Your task to perform on an android device: Search for pizza restaurants on Maps Image 0: 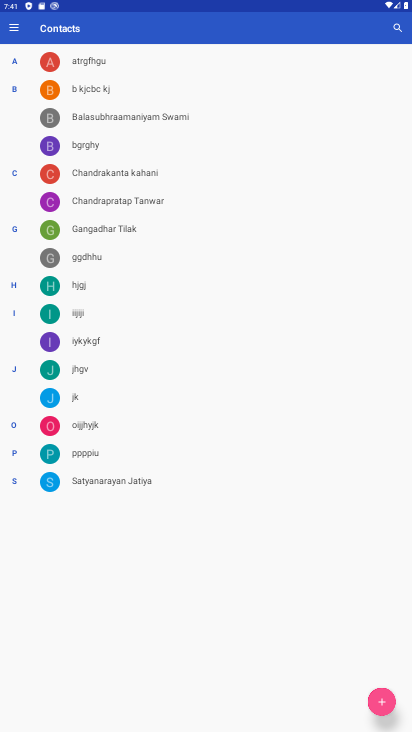
Step 0: press home button
Your task to perform on an android device: Search for pizza restaurants on Maps Image 1: 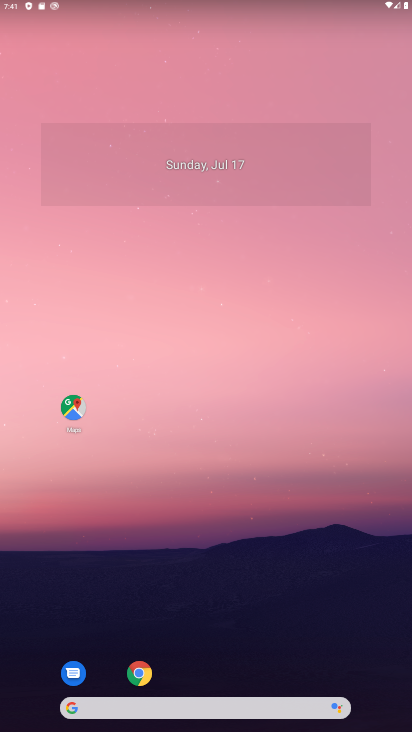
Step 1: click (64, 412)
Your task to perform on an android device: Search for pizza restaurants on Maps Image 2: 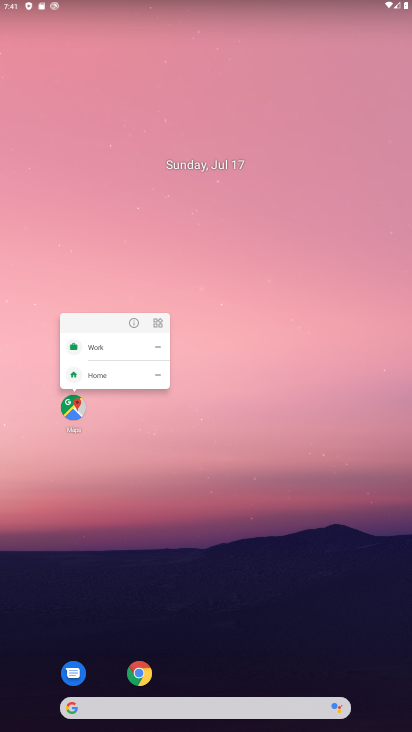
Step 2: click (64, 409)
Your task to perform on an android device: Search for pizza restaurants on Maps Image 3: 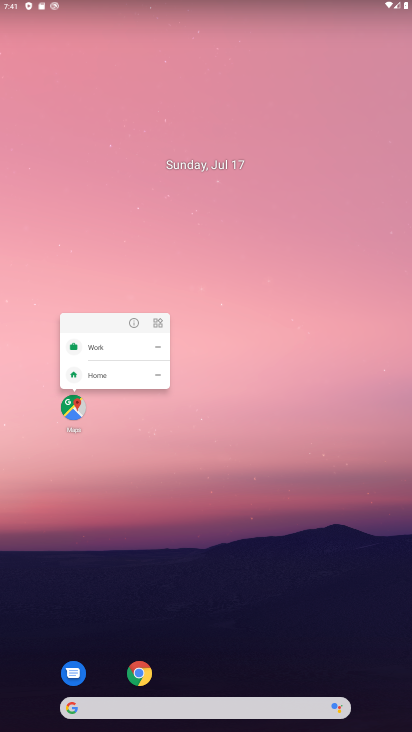
Step 3: click (75, 400)
Your task to perform on an android device: Search for pizza restaurants on Maps Image 4: 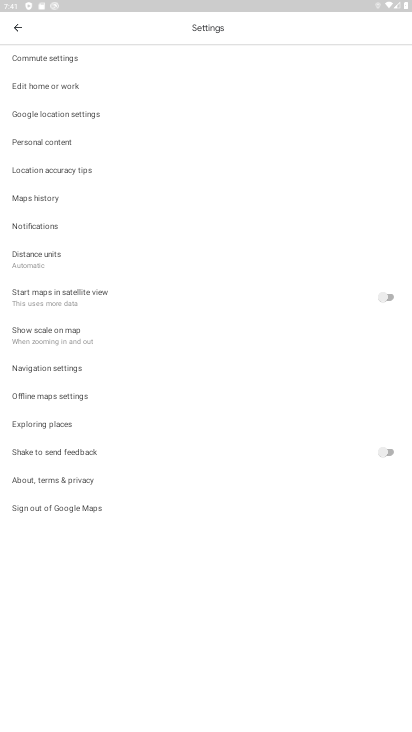
Step 4: click (11, 29)
Your task to perform on an android device: Search for pizza restaurants on Maps Image 5: 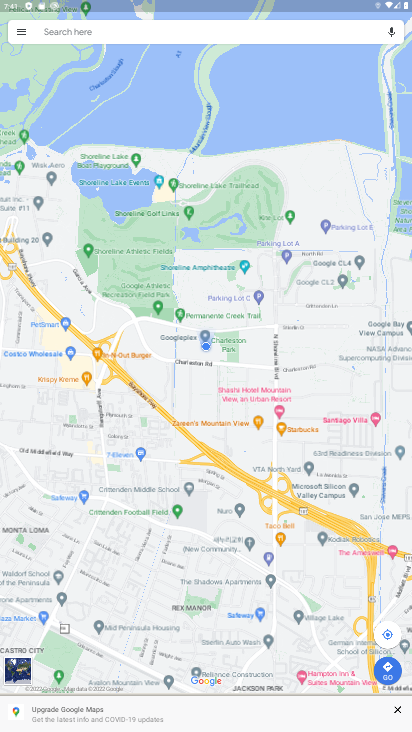
Step 5: click (62, 38)
Your task to perform on an android device: Search for pizza restaurants on Maps Image 6: 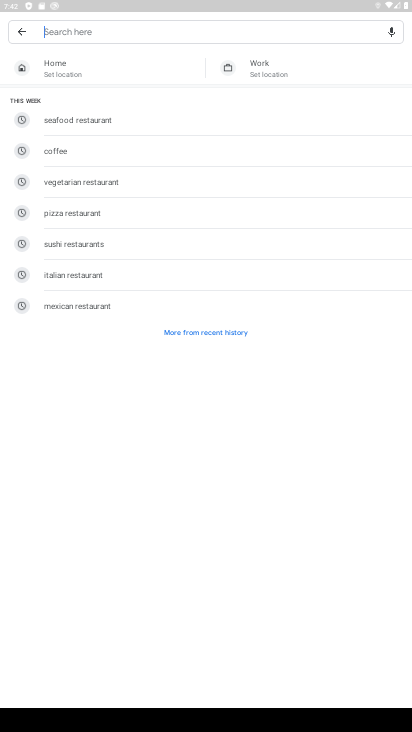
Step 6: type " pizza restaurants"
Your task to perform on an android device: Search for pizza restaurants on Maps Image 7: 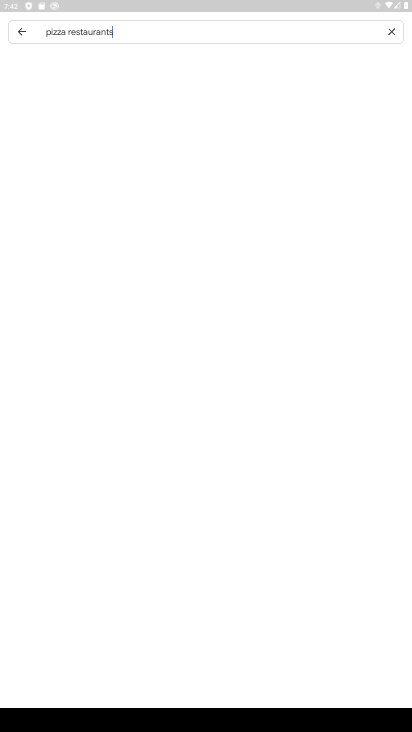
Step 7: type ""
Your task to perform on an android device: Search for pizza restaurants on Maps Image 8: 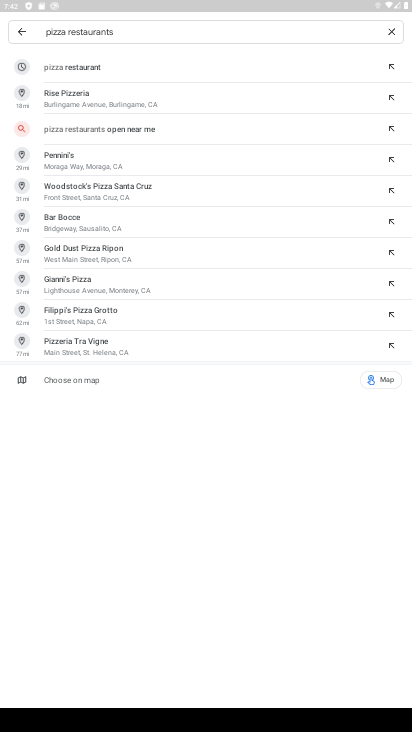
Step 8: task complete